Your task to perform on an android device: What's on my calendar tomorrow? Image 0: 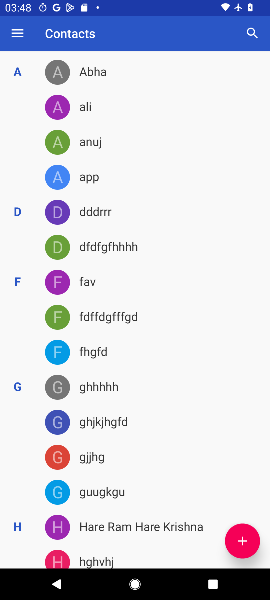
Step 0: press home button
Your task to perform on an android device: What's on my calendar tomorrow? Image 1: 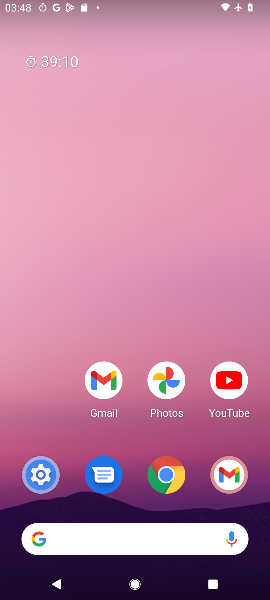
Step 1: drag from (67, 425) to (56, 242)
Your task to perform on an android device: What's on my calendar tomorrow? Image 2: 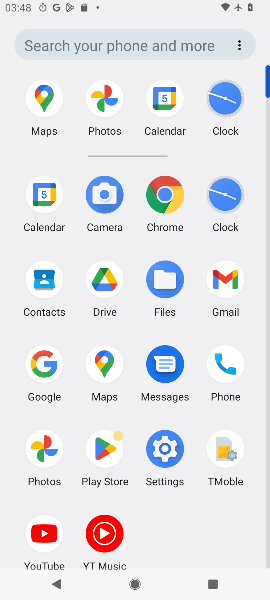
Step 2: click (43, 204)
Your task to perform on an android device: What's on my calendar tomorrow? Image 3: 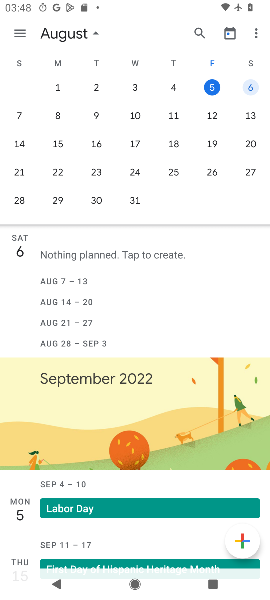
Step 3: click (249, 86)
Your task to perform on an android device: What's on my calendar tomorrow? Image 4: 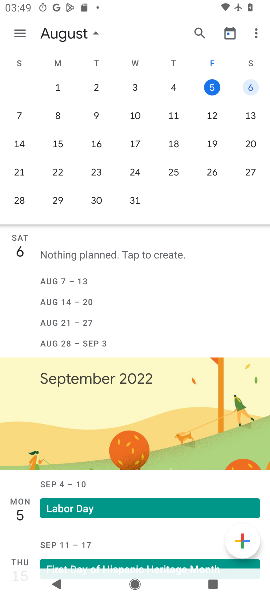
Step 4: task complete